Your task to perform on an android device: change keyboard looks Image 0: 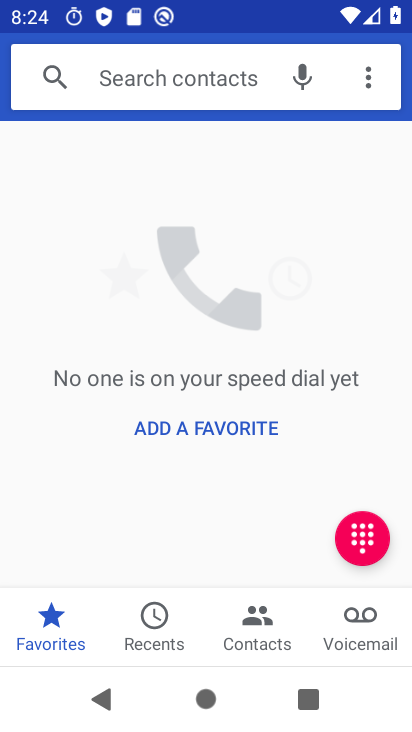
Step 0: press home button
Your task to perform on an android device: change keyboard looks Image 1: 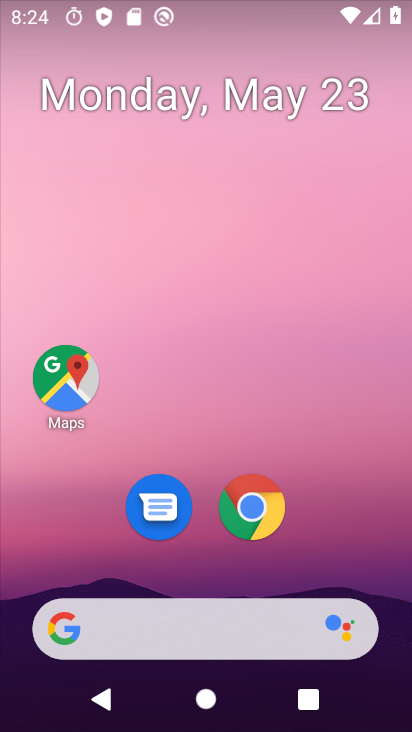
Step 1: drag from (347, 474) to (260, 2)
Your task to perform on an android device: change keyboard looks Image 2: 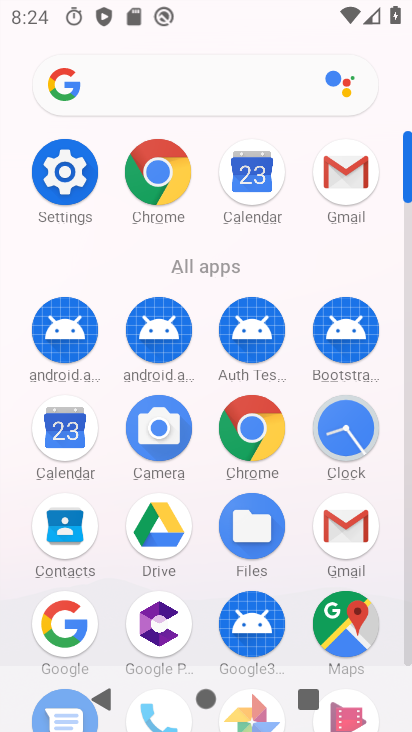
Step 2: click (59, 178)
Your task to perform on an android device: change keyboard looks Image 3: 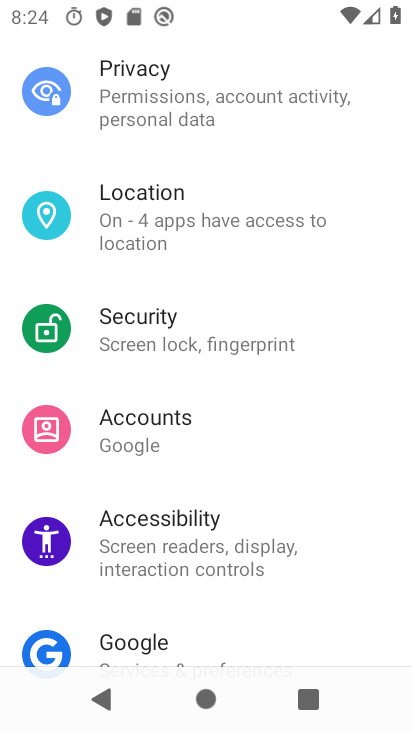
Step 3: drag from (273, 598) to (275, 19)
Your task to perform on an android device: change keyboard looks Image 4: 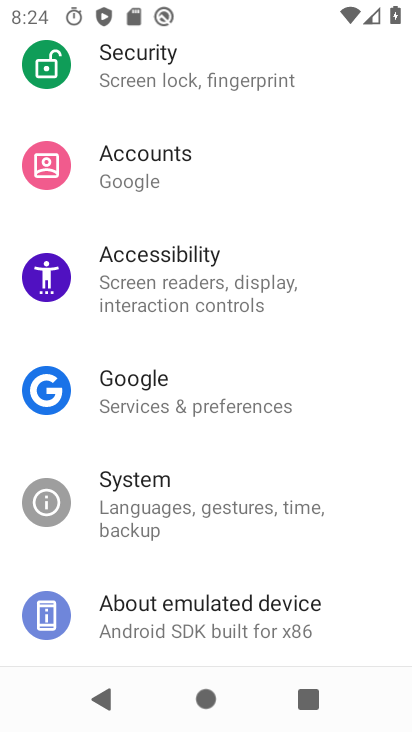
Step 4: drag from (153, 527) to (216, 70)
Your task to perform on an android device: change keyboard looks Image 5: 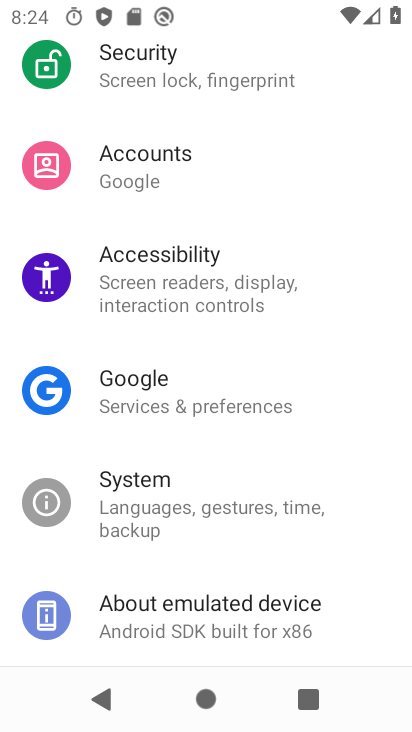
Step 5: click (170, 497)
Your task to perform on an android device: change keyboard looks Image 6: 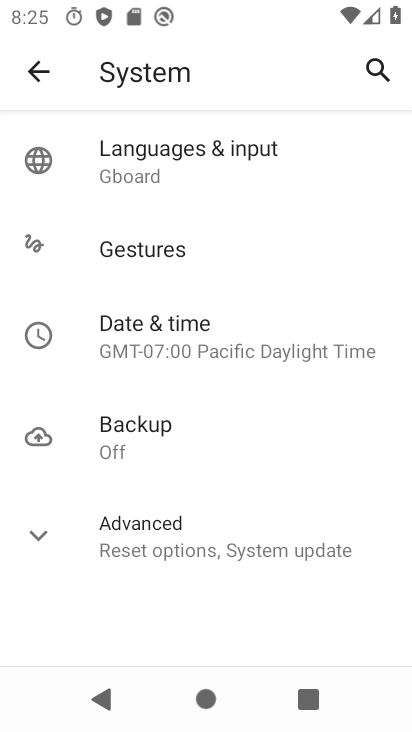
Step 6: click (138, 184)
Your task to perform on an android device: change keyboard looks Image 7: 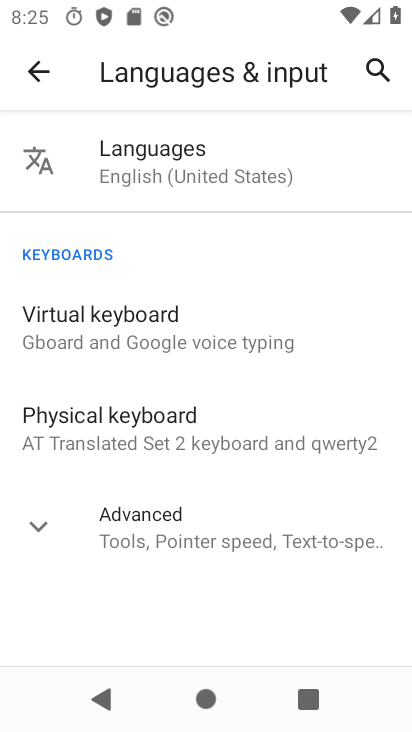
Step 7: click (139, 345)
Your task to perform on an android device: change keyboard looks Image 8: 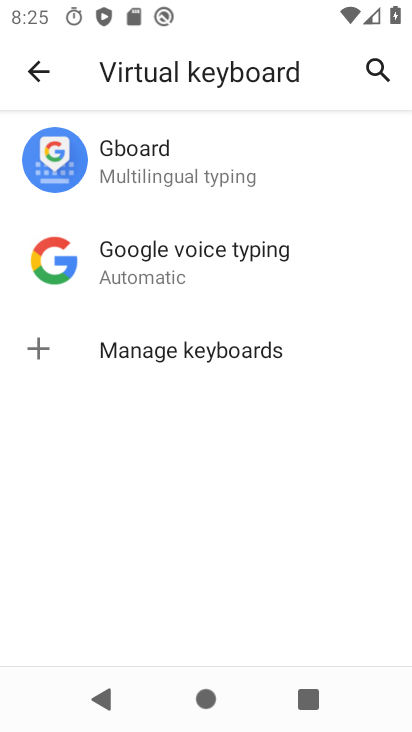
Step 8: click (202, 163)
Your task to perform on an android device: change keyboard looks Image 9: 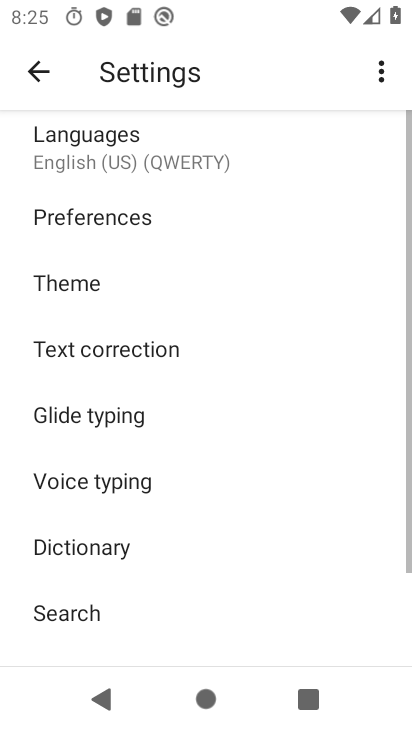
Step 9: click (83, 288)
Your task to perform on an android device: change keyboard looks Image 10: 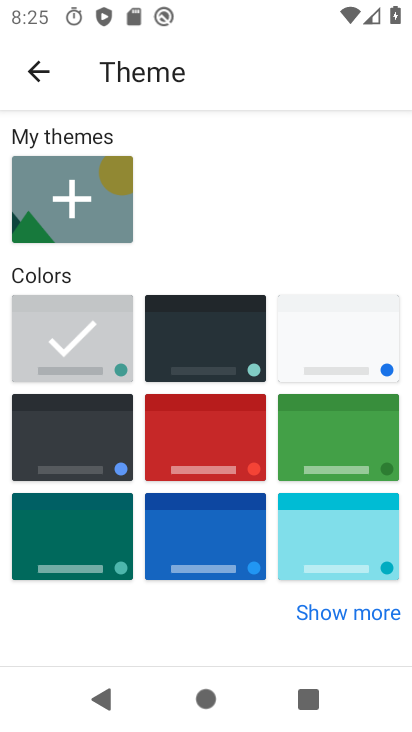
Step 10: click (196, 365)
Your task to perform on an android device: change keyboard looks Image 11: 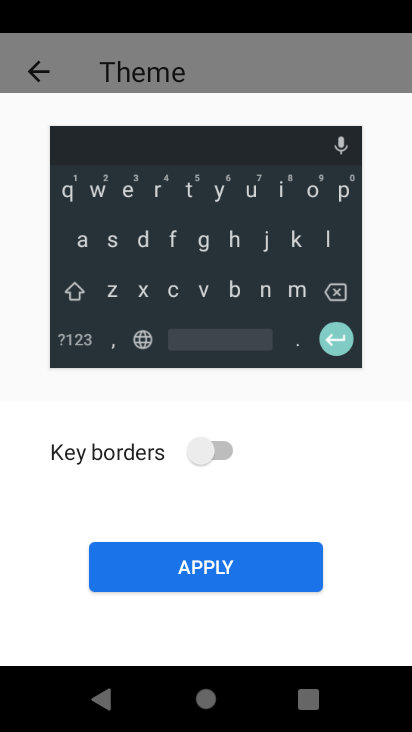
Step 11: click (203, 567)
Your task to perform on an android device: change keyboard looks Image 12: 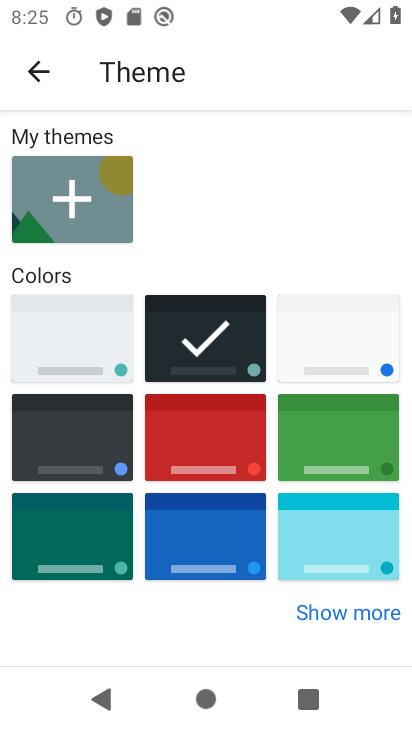
Step 12: task complete